Your task to perform on an android device: Search for the best websites on the internet Image 0: 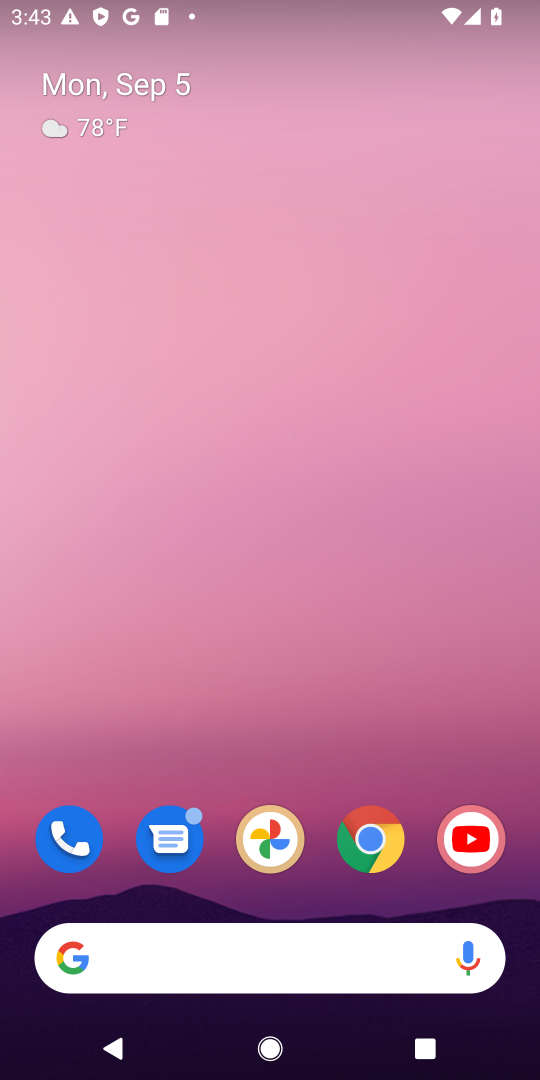
Step 0: click (337, 977)
Your task to perform on an android device: Search for the best websites on the internet Image 1: 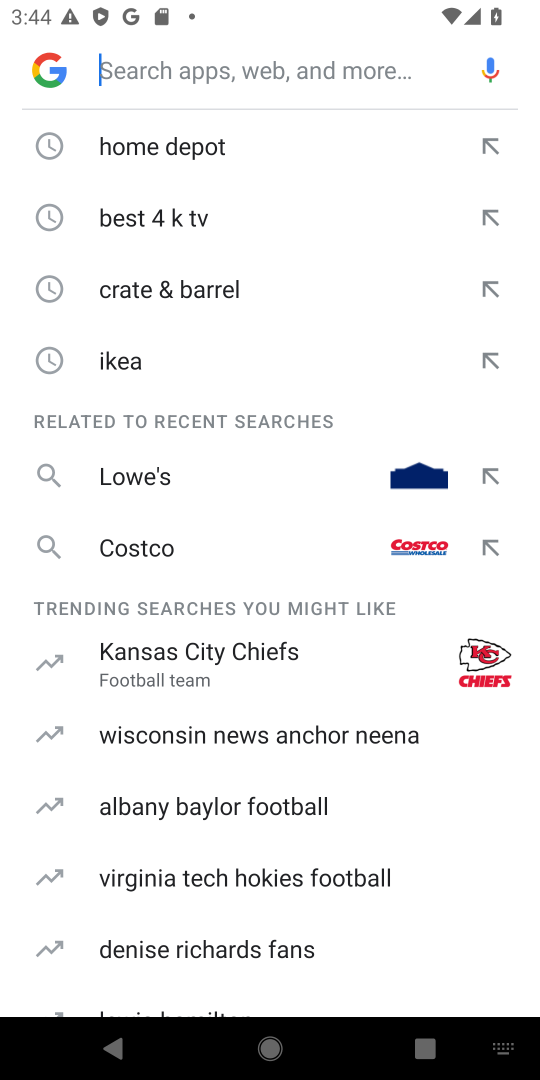
Step 1: type "best websites on the internet"
Your task to perform on an android device: Search for the best websites on the internet Image 2: 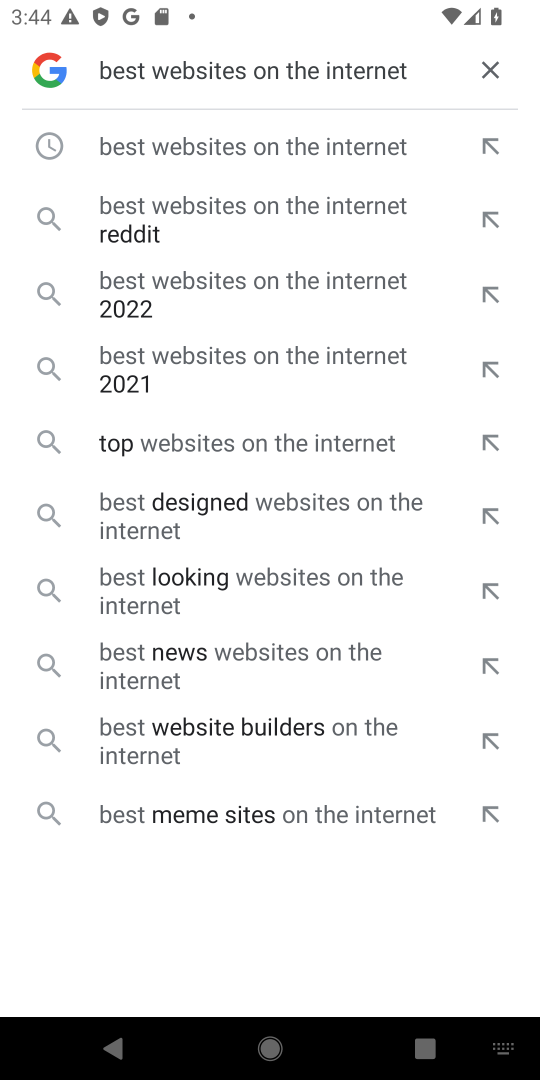
Step 2: press enter
Your task to perform on an android device: Search for the best websites on the internet Image 3: 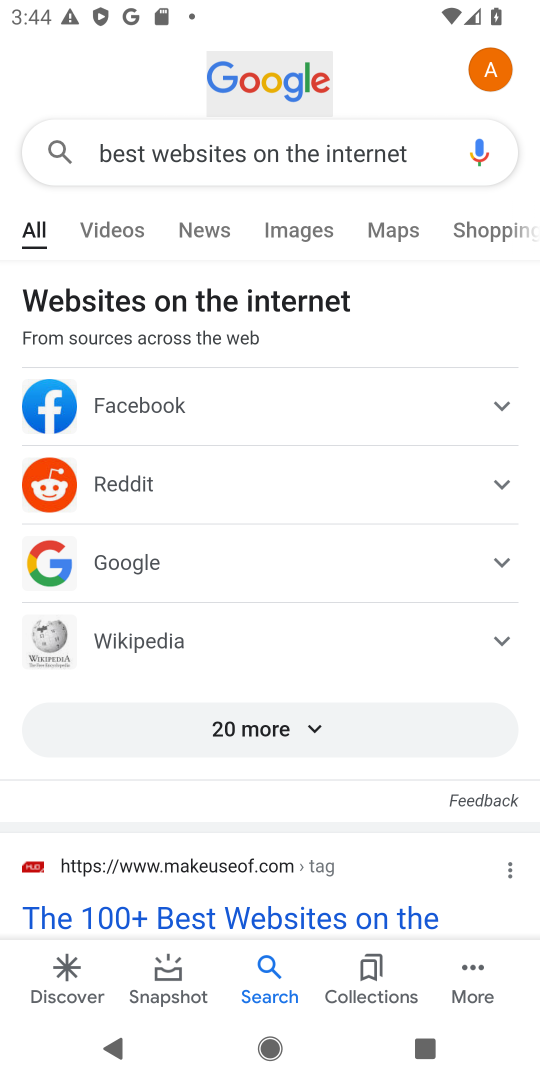
Step 3: drag from (193, 805) to (109, 797)
Your task to perform on an android device: Search for the best websites on the internet Image 4: 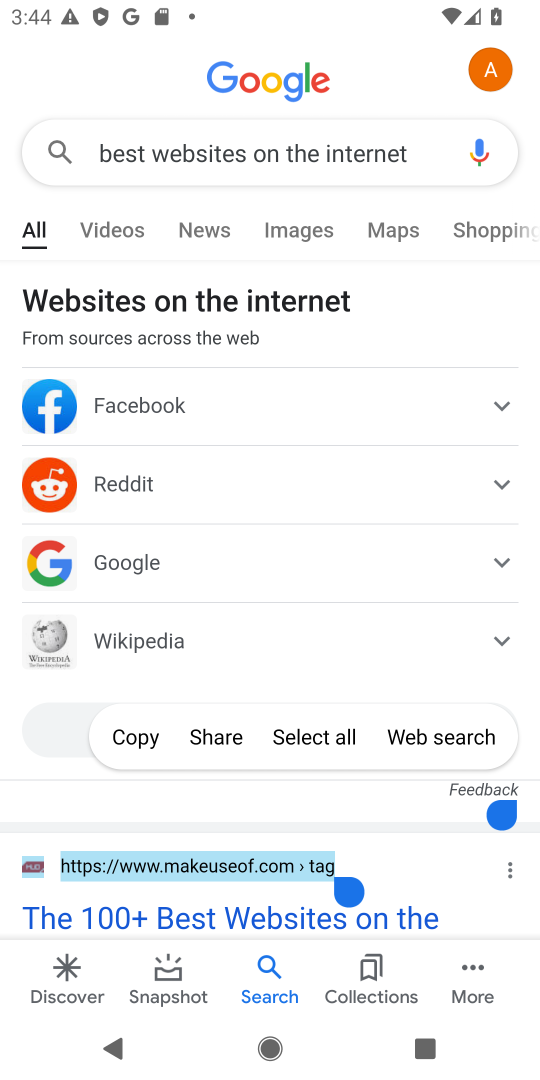
Step 4: click (143, 92)
Your task to perform on an android device: Search for the best websites on the internet Image 5: 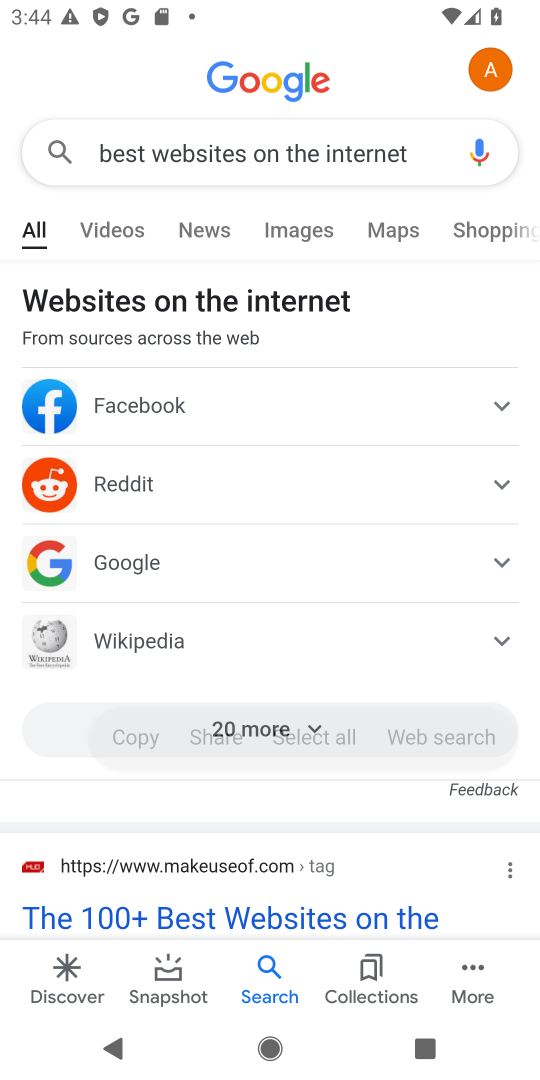
Step 5: drag from (150, 81) to (172, 6)
Your task to perform on an android device: Search for the best websites on the internet Image 6: 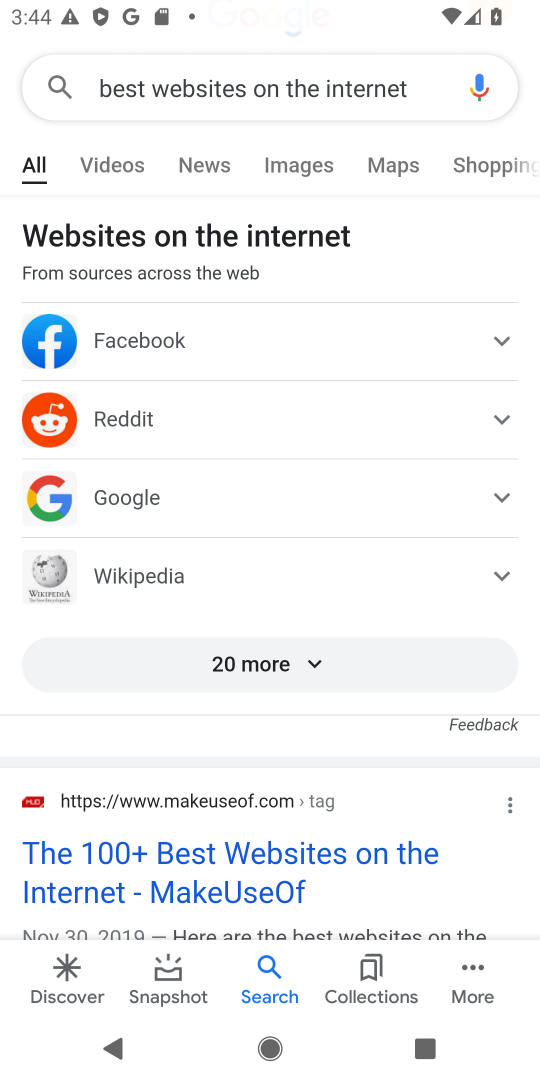
Step 6: click (86, 728)
Your task to perform on an android device: Search for the best websites on the internet Image 7: 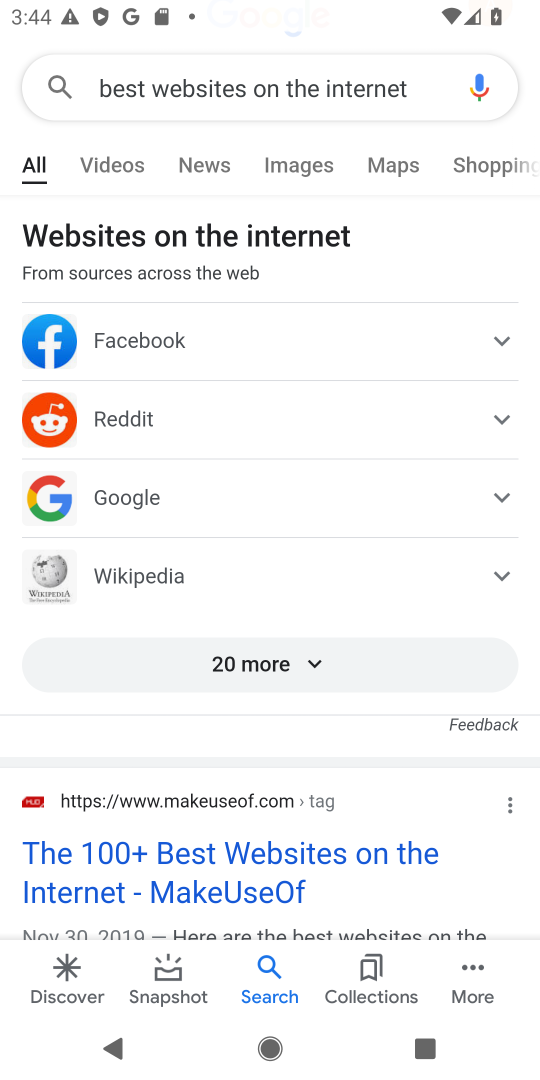
Step 7: drag from (86, 728) to (161, 210)
Your task to perform on an android device: Search for the best websites on the internet Image 8: 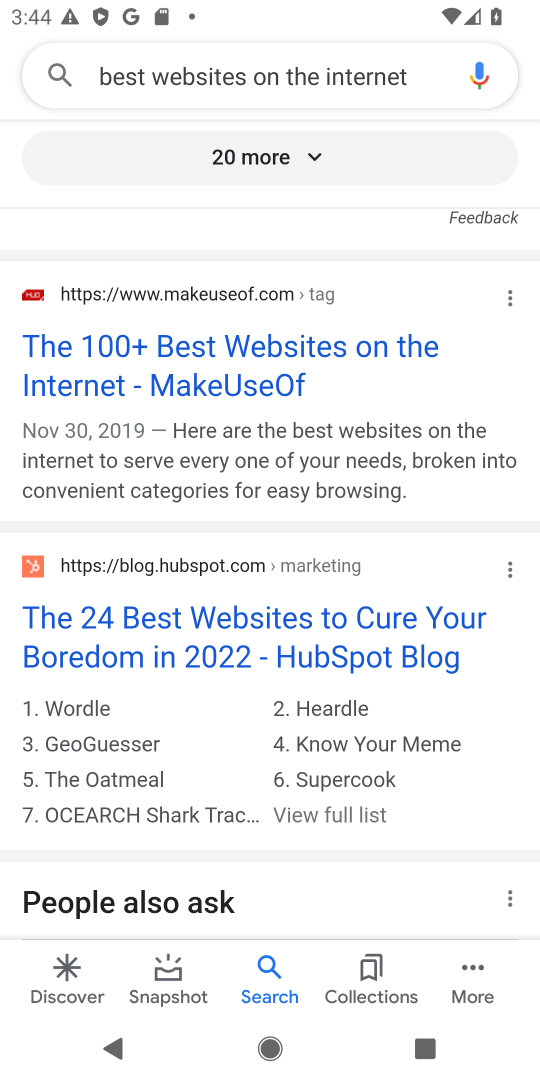
Step 8: drag from (444, 544) to (451, 227)
Your task to perform on an android device: Search for the best websites on the internet Image 9: 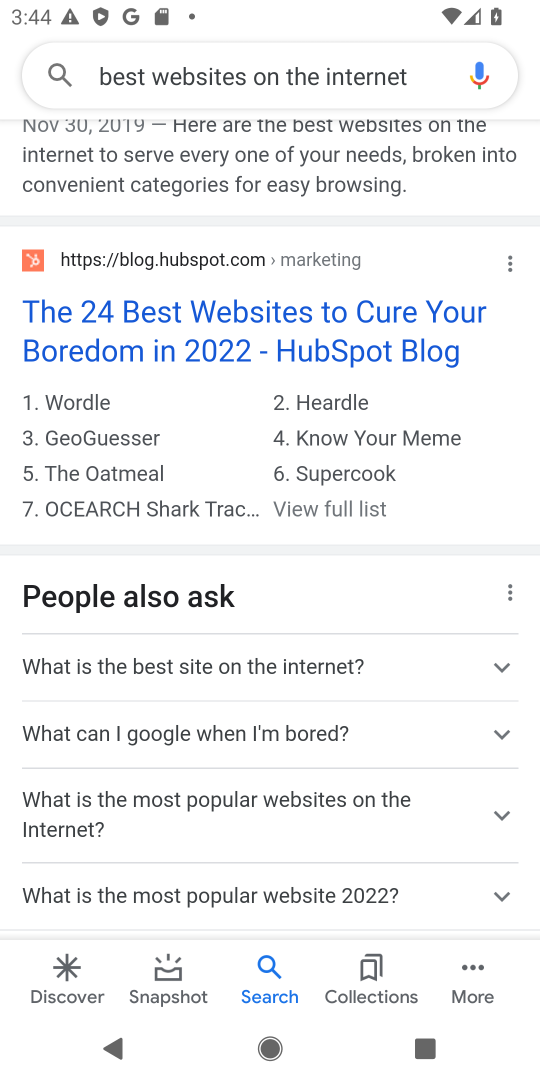
Step 9: drag from (411, 593) to (454, 342)
Your task to perform on an android device: Search for the best websites on the internet Image 10: 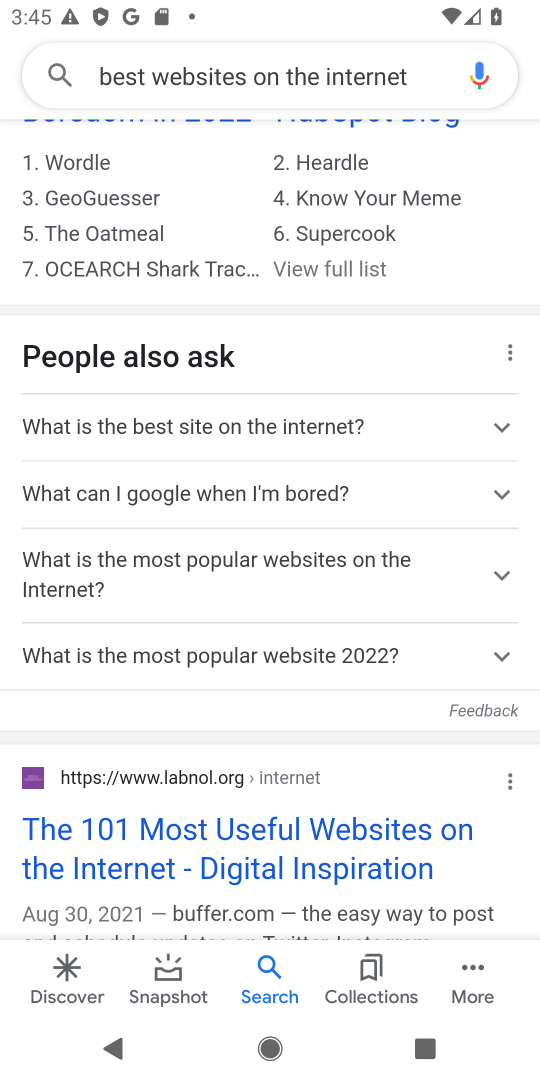
Step 10: drag from (384, 756) to (399, 410)
Your task to perform on an android device: Search for the best websites on the internet Image 11: 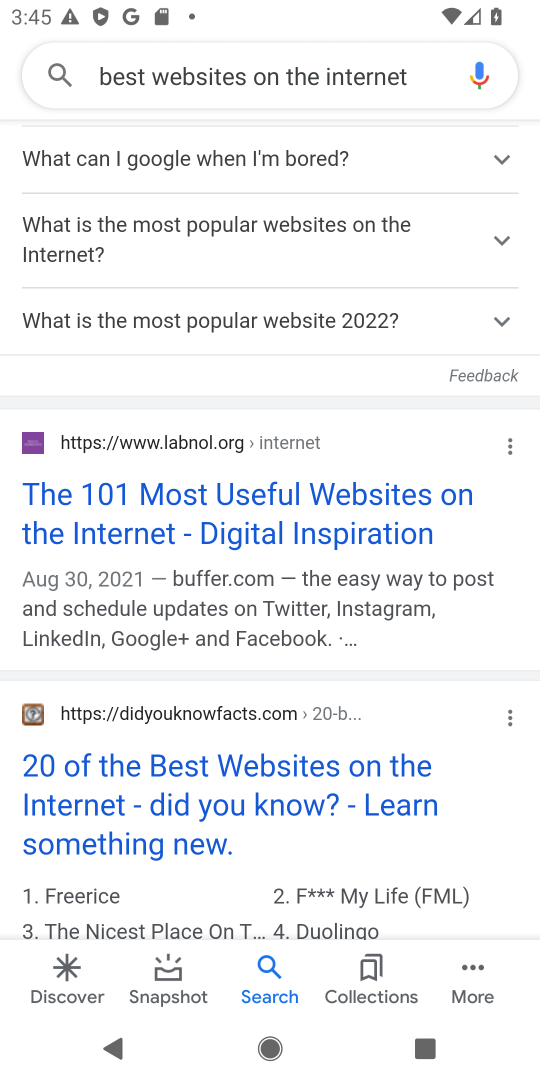
Step 11: drag from (405, 688) to (423, 420)
Your task to perform on an android device: Search for the best websites on the internet Image 12: 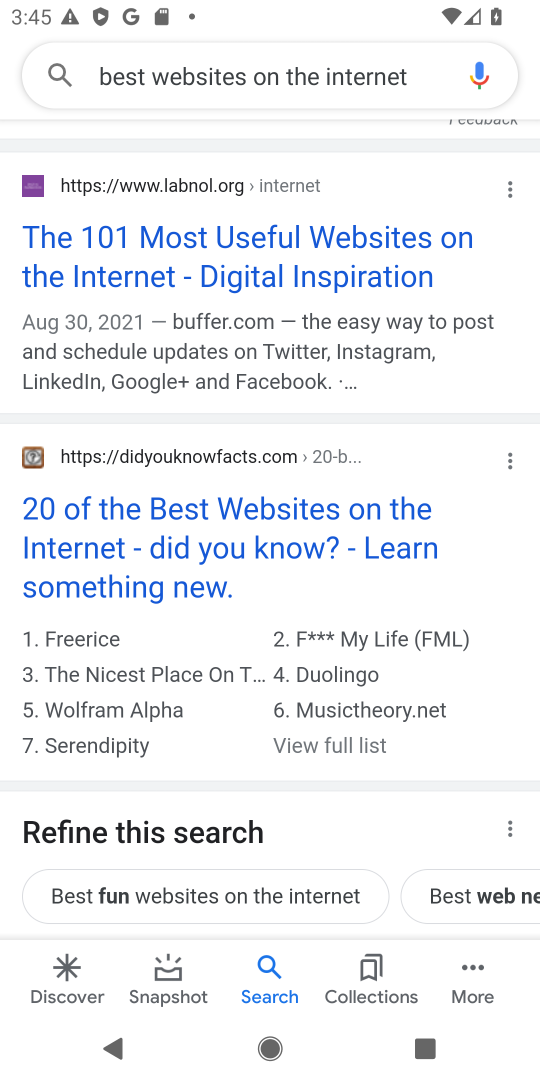
Step 12: drag from (429, 405) to (402, 623)
Your task to perform on an android device: Search for the best websites on the internet Image 13: 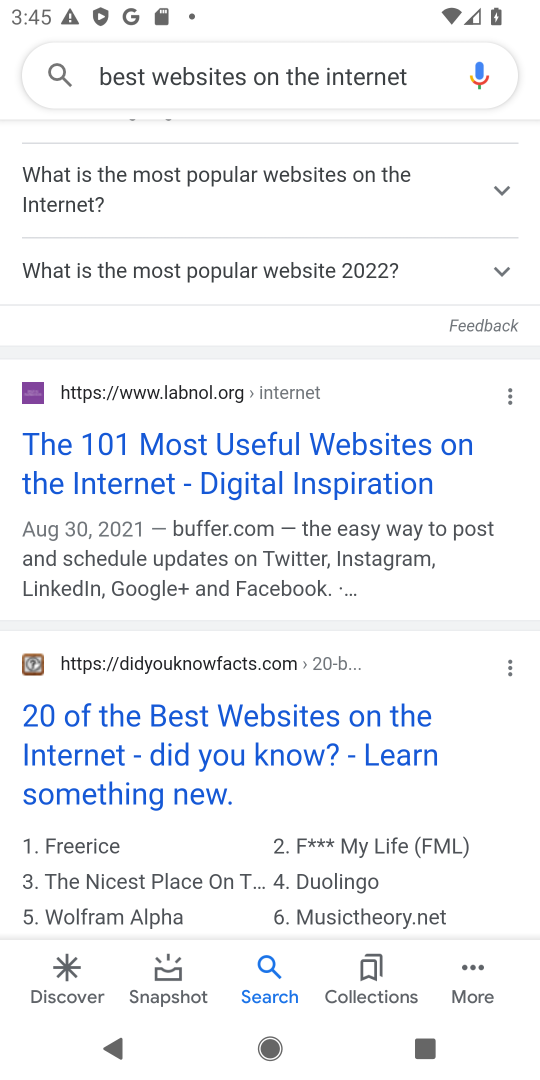
Step 13: click (251, 724)
Your task to perform on an android device: Search for the best websites on the internet Image 14: 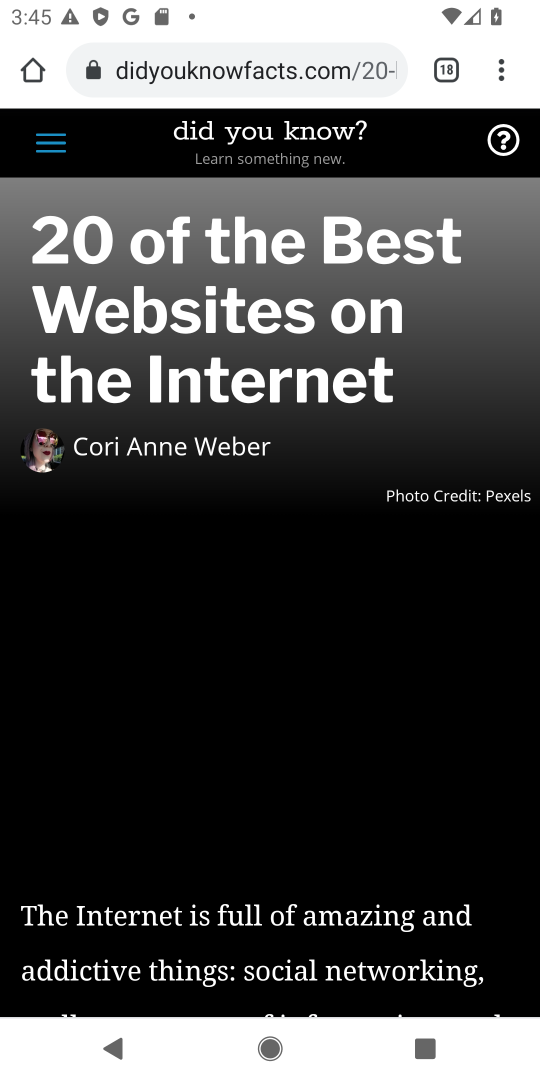
Step 14: drag from (334, 557) to (384, 54)
Your task to perform on an android device: Search for the best websites on the internet Image 15: 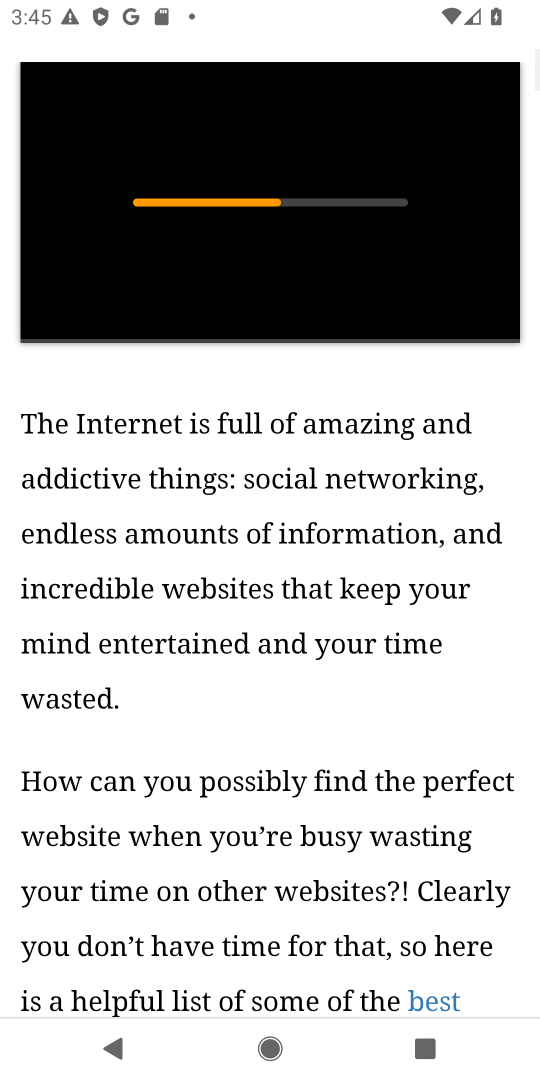
Step 15: drag from (456, 775) to (479, 382)
Your task to perform on an android device: Search for the best websites on the internet Image 16: 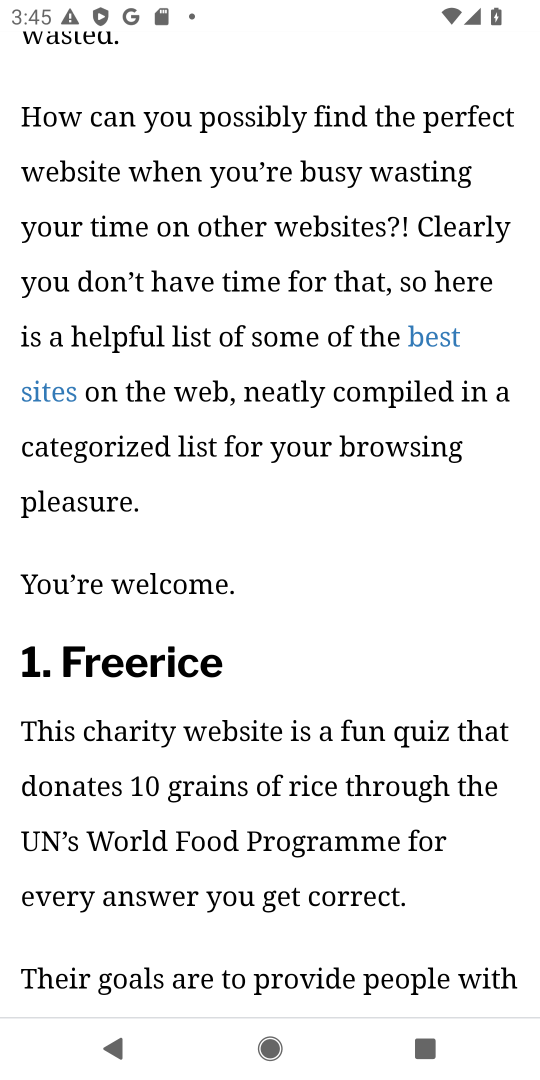
Step 16: drag from (339, 660) to (408, 264)
Your task to perform on an android device: Search for the best websites on the internet Image 17: 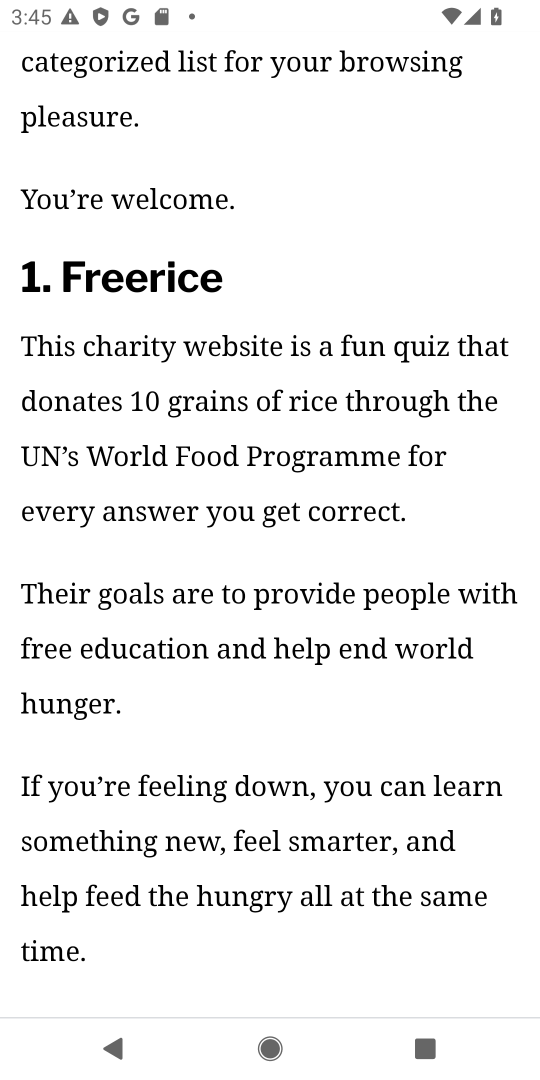
Step 17: drag from (361, 736) to (359, 312)
Your task to perform on an android device: Search for the best websites on the internet Image 18: 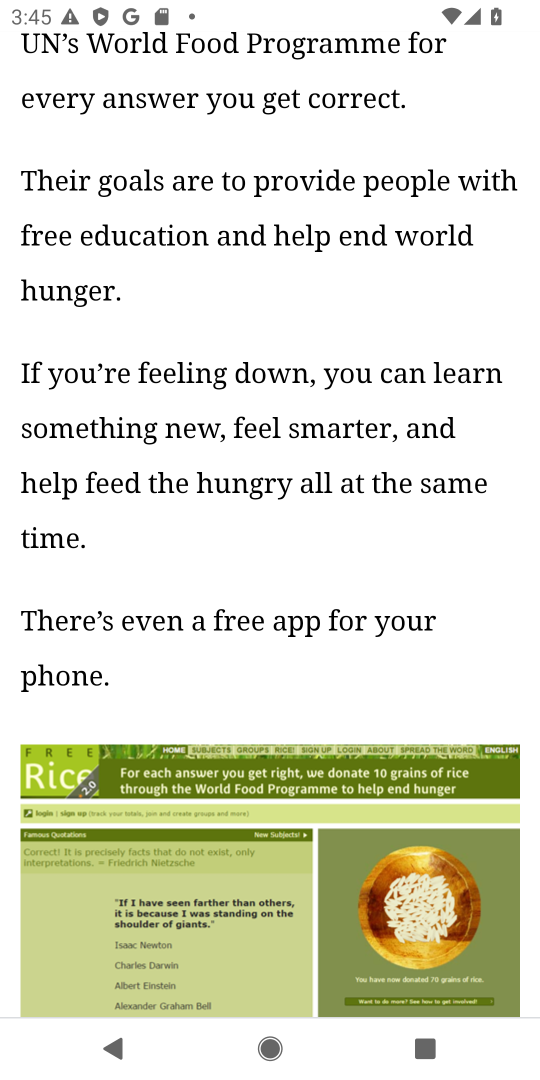
Step 18: drag from (365, 551) to (370, 238)
Your task to perform on an android device: Search for the best websites on the internet Image 19: 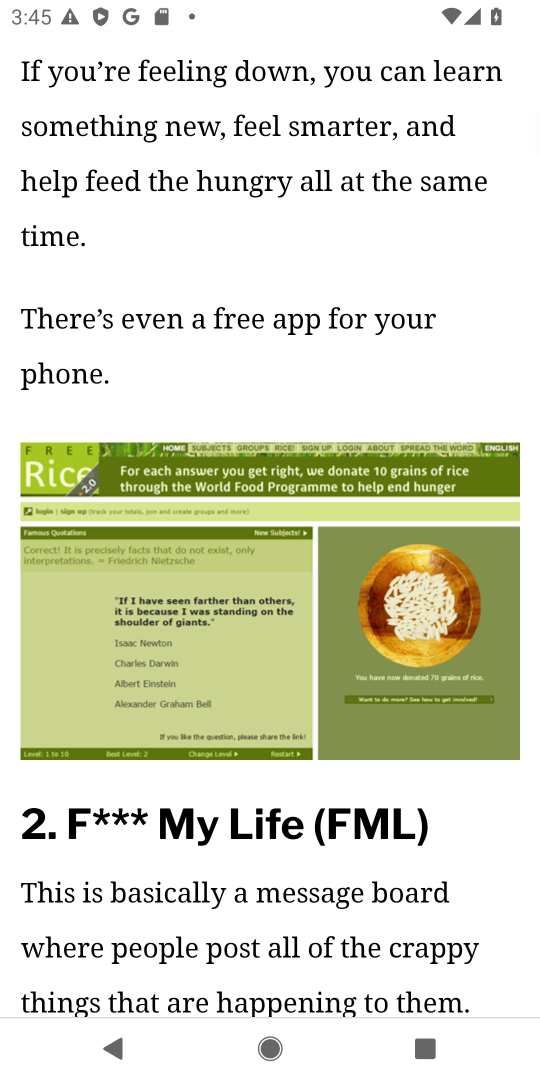
Step 19: drag from (433, 898) to (430, 237)
Your task to perform on an android device: Search for the best websites on the internet Image 20: 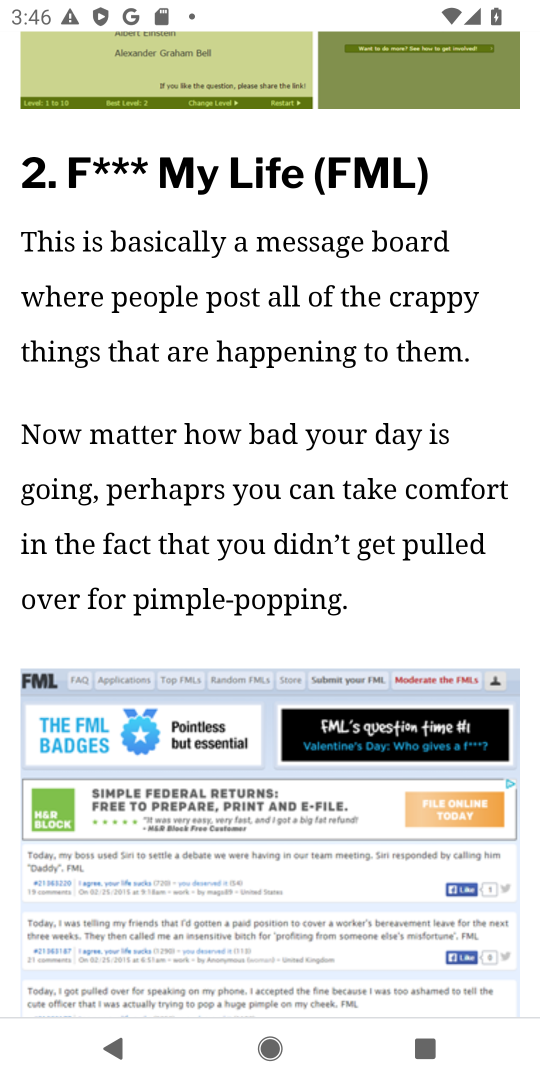
Step 20: drag from (295, 428) to (309, 200)
Your task to perform on an android device: Search for the best websites on the internet Image 21: 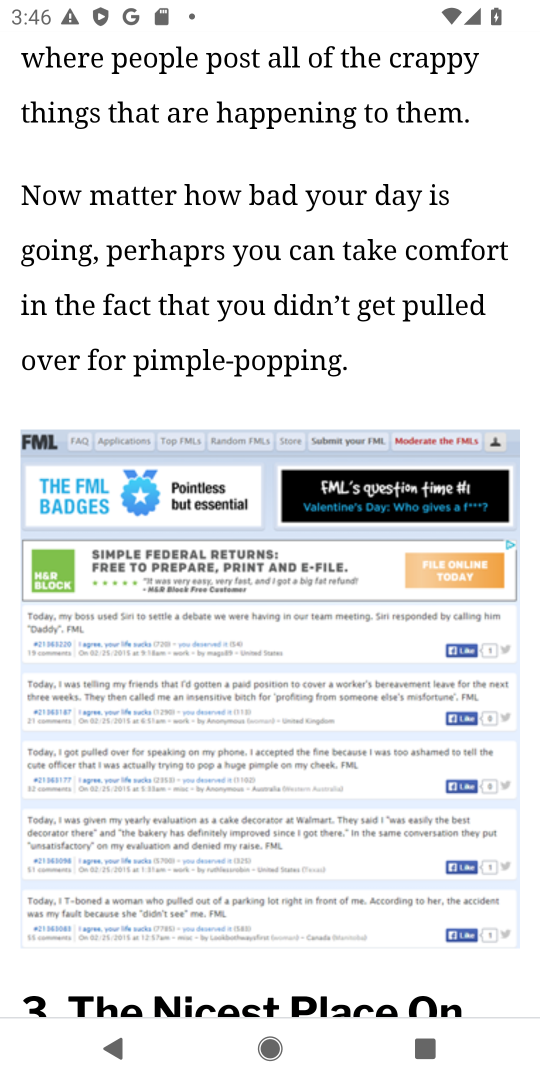
Step 21: drag from (214, 992) to (263, 219)
Your task to perform on an android device: Search for the best websites on the internet Image 22: 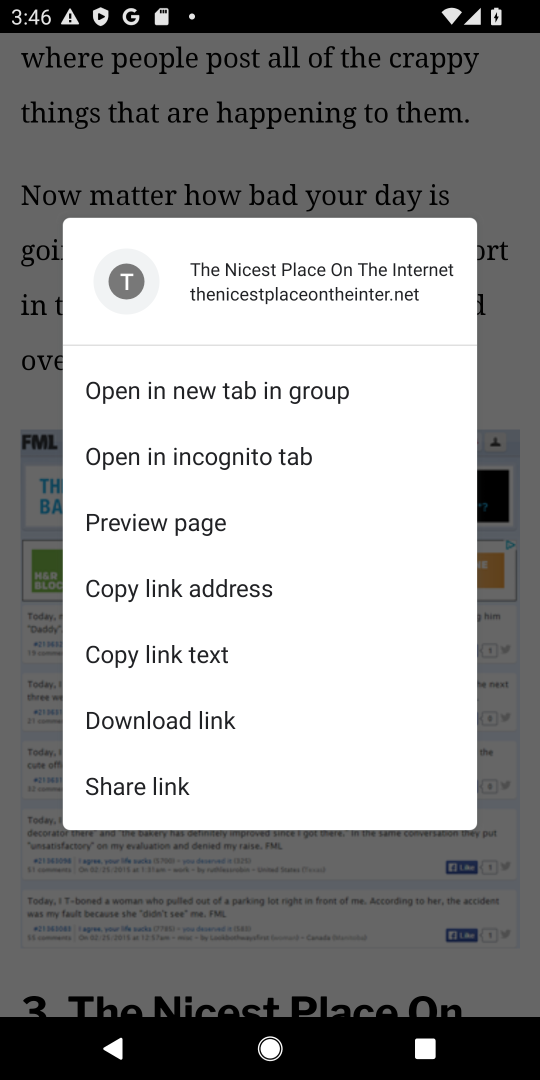
Step 22: click (323, 124)
Your task to perform on an android device: Search for the best websites on the internet Image 23: 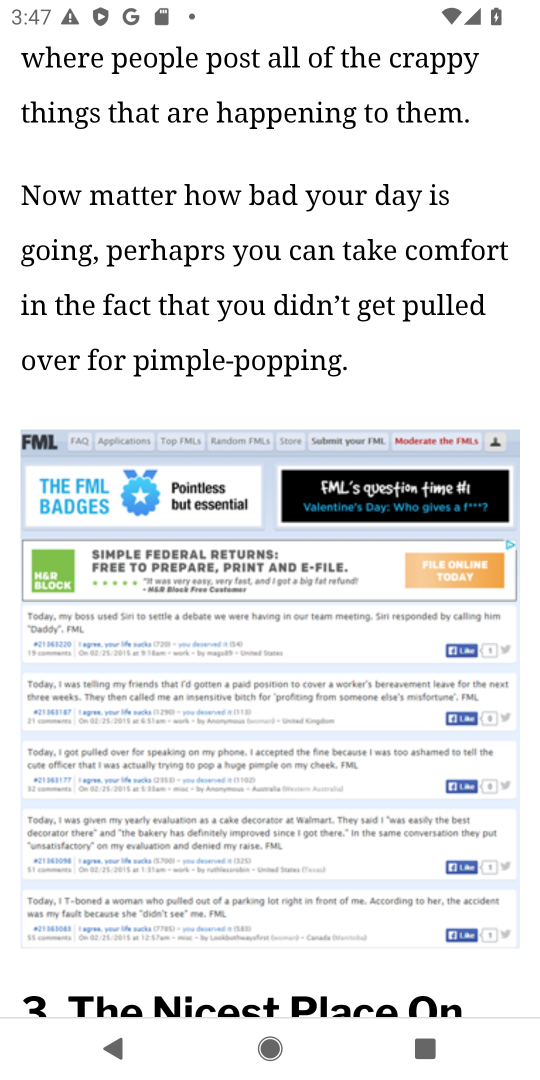
Step 23: task complete